Your task to perform on an android device: empty trash in google photos Image 0: 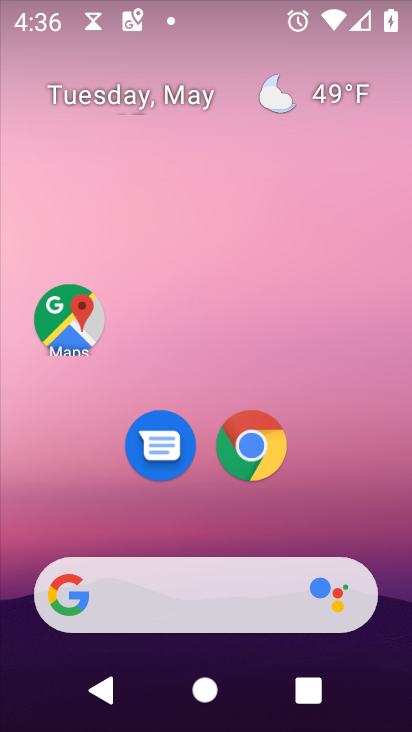
Step 0: drag from (207, 602) to (264, 60)
Your task to perform on an android device: empty trash in google photos Image 1: 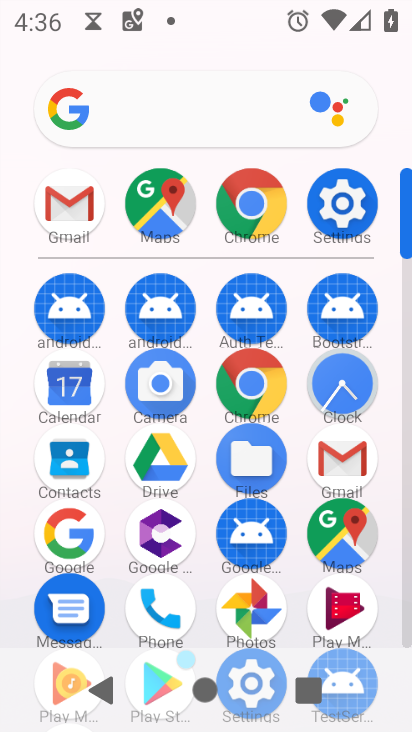
Step 1: click (238, 591)
Your task to perform on an android device: empty trash in google photos Image 2: 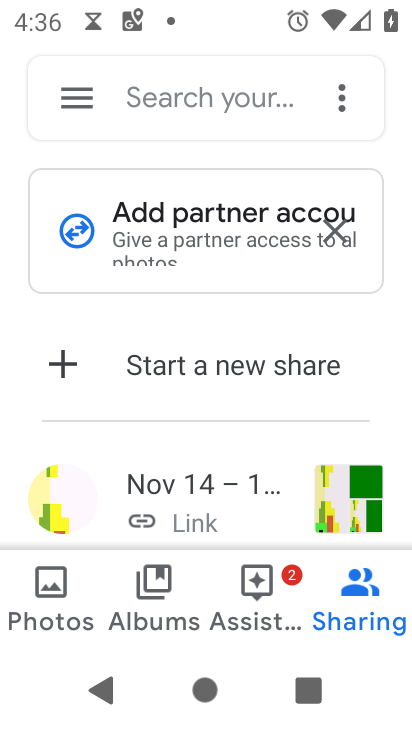
Step 2: click (73, 102)
Your task to perform on an android device: empty trash in google photos Image 3: 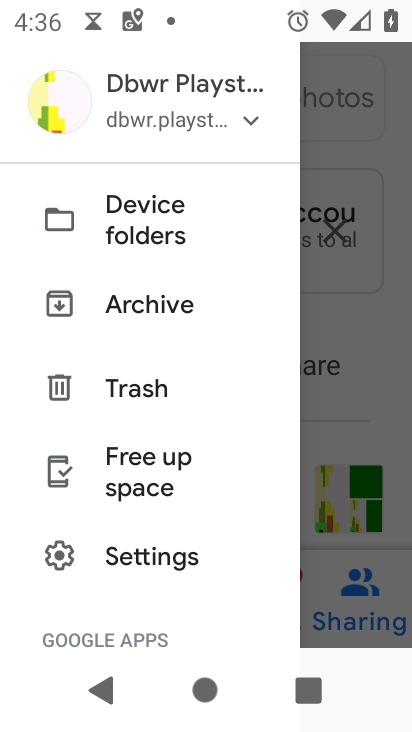
Step 3: click (177, 391)
Your task to perform on an android device: empty trash in google photos Image 4: 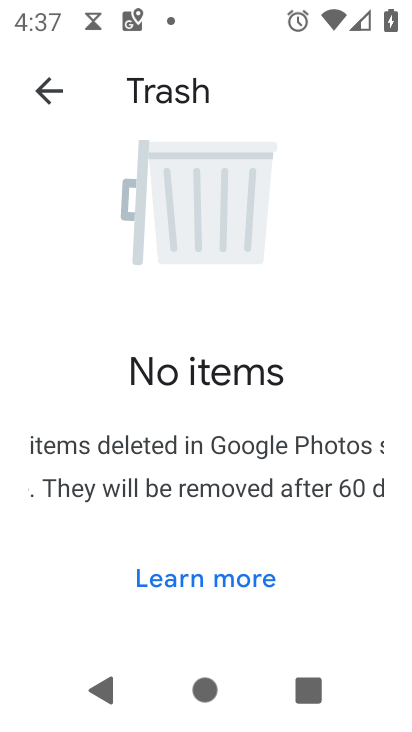
Step 4: task complete